Your task to perform on an android device: turn off translation in the chrome app Image 0: 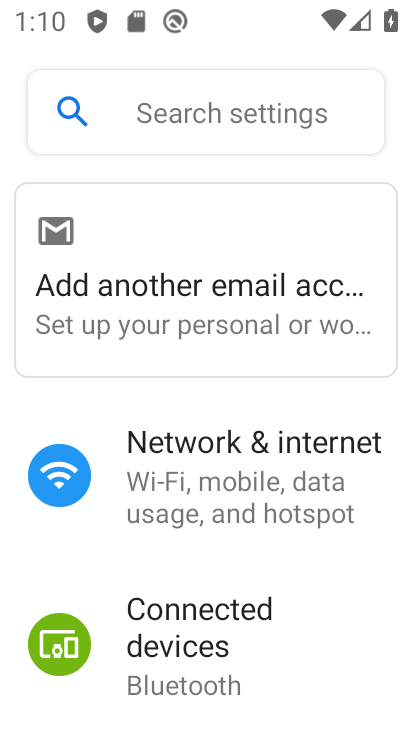
Step 0: press home button
Your task to perform on an android device: turn off translation in the chrome app Image 1: 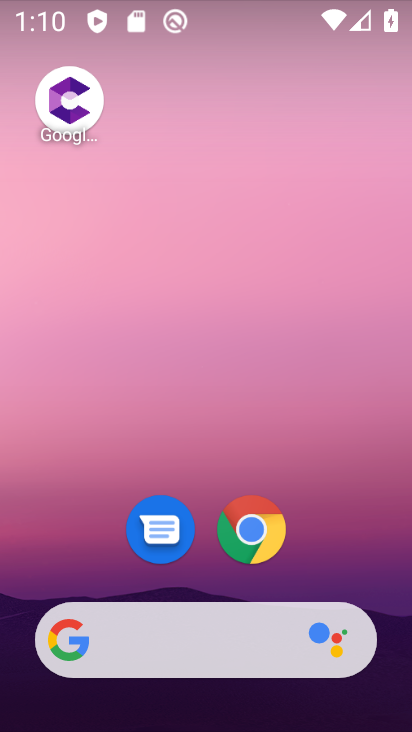
Step 1: click (242, 533)
Your task to perform on an android device: turn off translation in the chrome app Image 2: 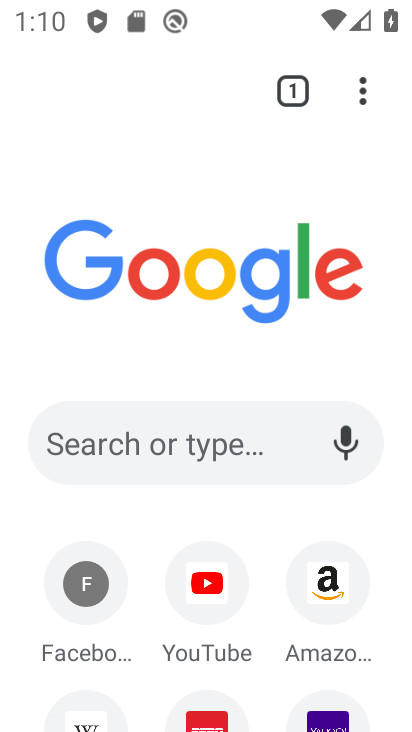
Step 2: click (358, 99)
Your task to perform on an android device: turn off translation in the chrome app Image 3: 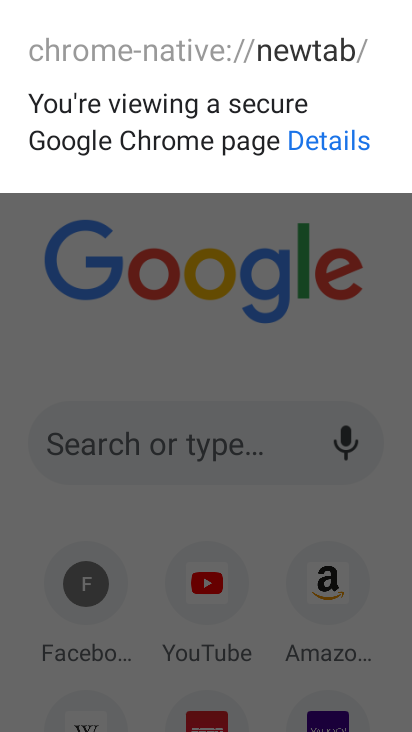
Step 3: click (275, 399)
Your task to perform on an android device: turn off translation in the chrome app Image 4: 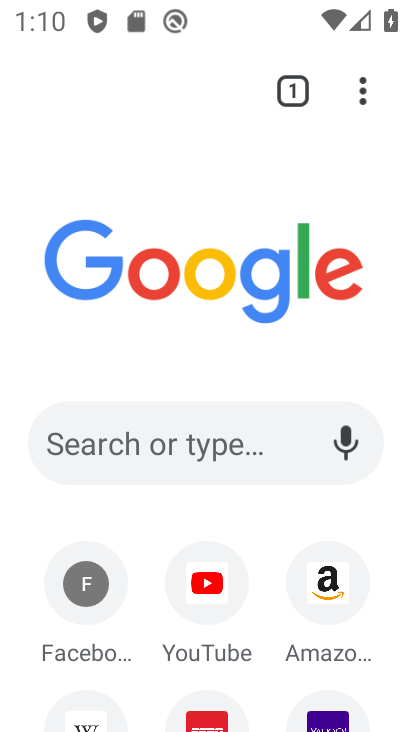
Step 4: click (358, 89)
Your task to perform on an android device: turn off translation in the chrome app Image 5: 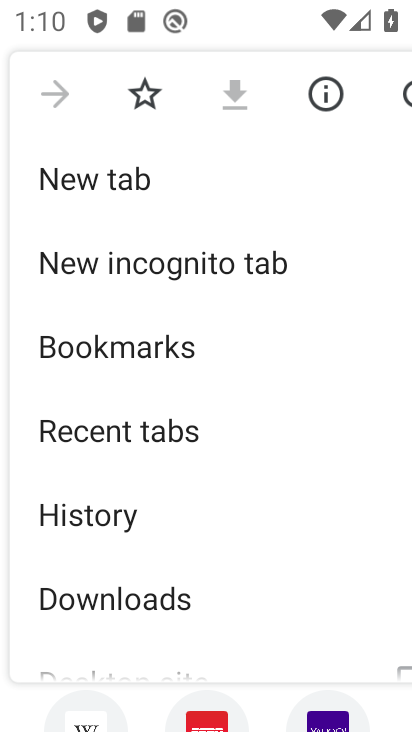
Step 5: drag from (131, 583) to (143, 345)
Your task to perform on an android device: turn off translation in the chrome app Image 6: 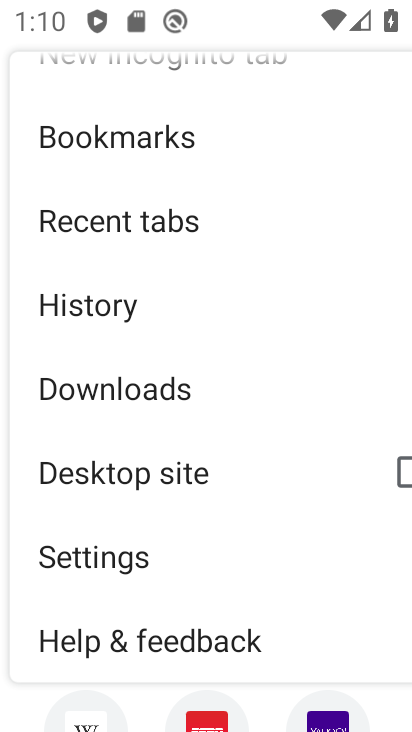
Step 6: click (120, 562)
Your task to perform on an android device: turn off translation in the chrome app Image 7: 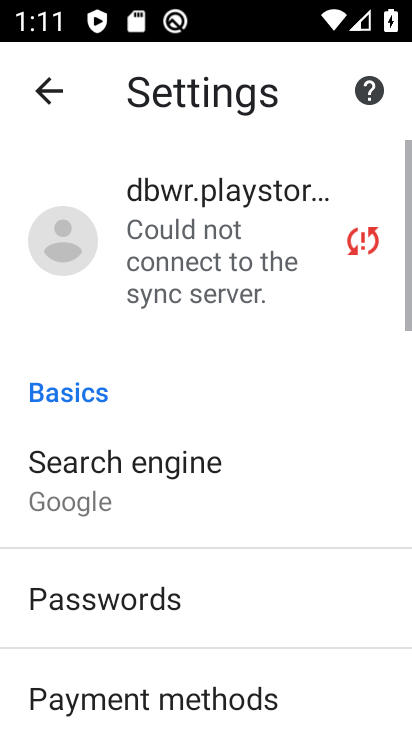
Step 7: drag from (150, 672) to (154, 305)
Your task to perform on an android device: turn off translation in the chrome app Image 8: 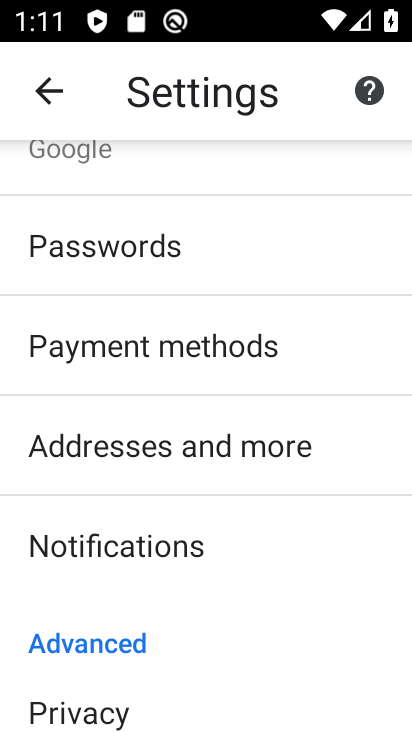
Step 8: drag from (83, 625) to (112, 358)
Your task to perform on an android device: turn off translation in the chrome app Image 9: 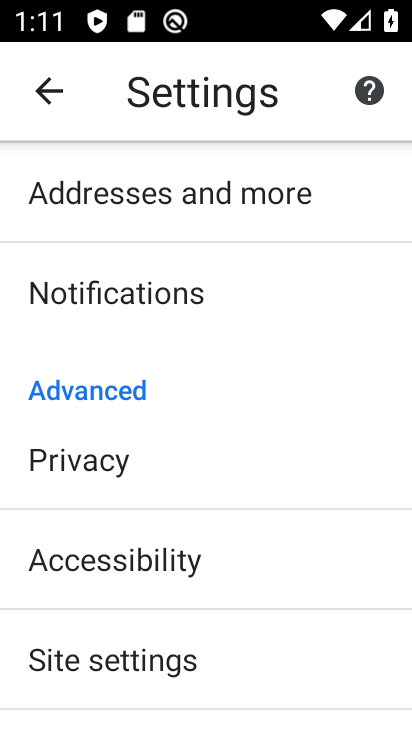
Step 9: drag from (107, 709) to (132, 345)
Your task to perform on an android device: turn off translation in the chrome app Image 10: 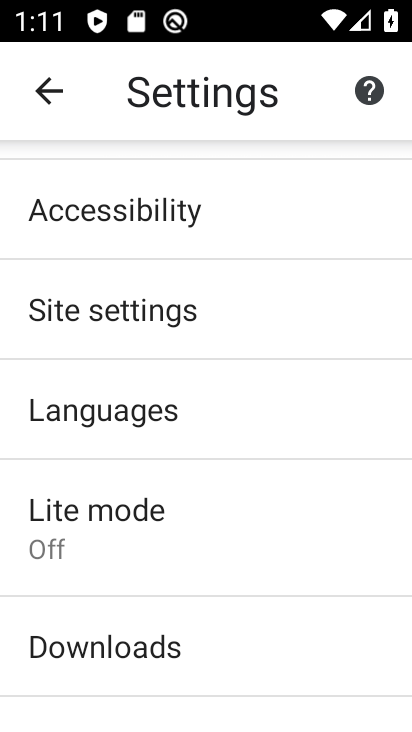
Step 10: click (122, 407)
Your task to perform on an android device: turn off translation in the chrome app Image 11: 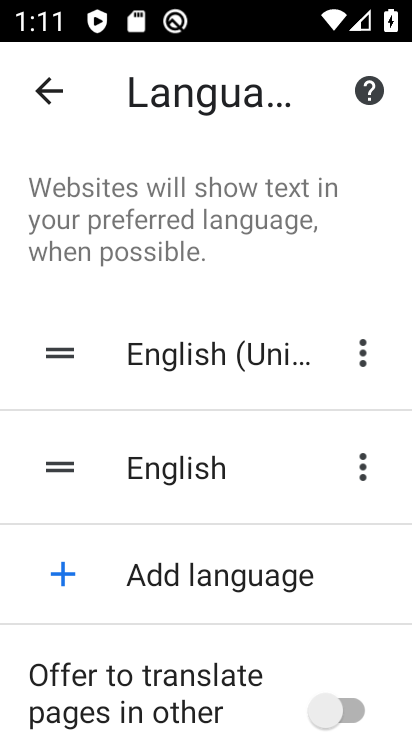
Step 11: task complete